Your task to perform on an android device: Go to calendar. Show me events next week Image 0: 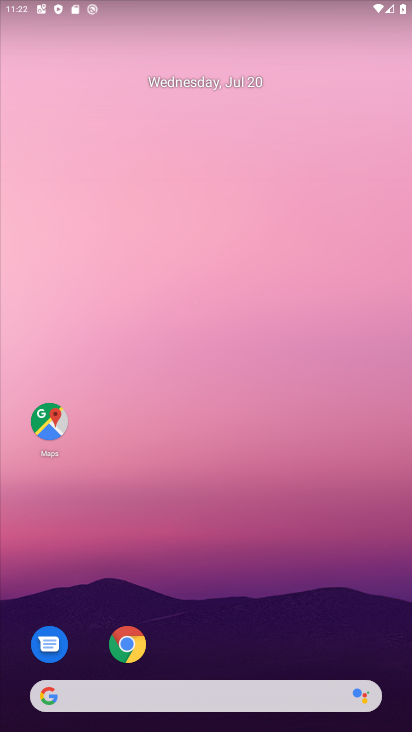
Step 0: drag from (167, 673) to (142, 58)
Your task to perform on an android device: Go to calendar. Show me events next week Image 1: 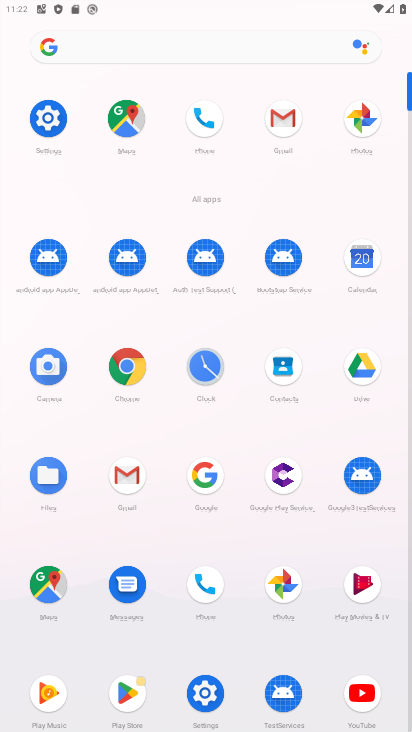
Step 1: click (359, 261)
Your task to perform on an android device: Go to calendar. Show me events next week Image 2: 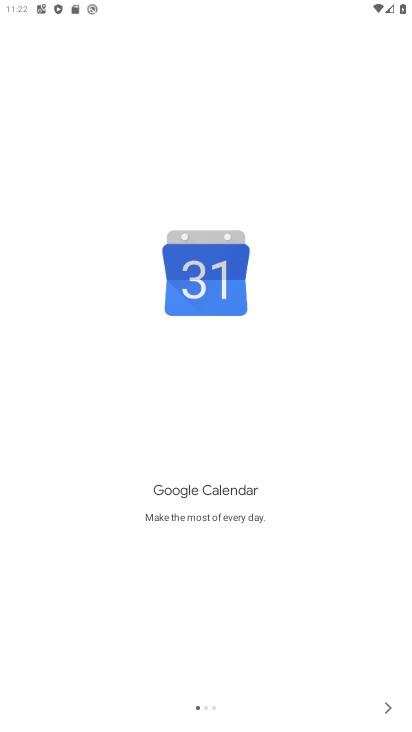
Step 2: click (377, 704)
Your task to perform on an android device: Go to calendar. Show me events next week Image 3: 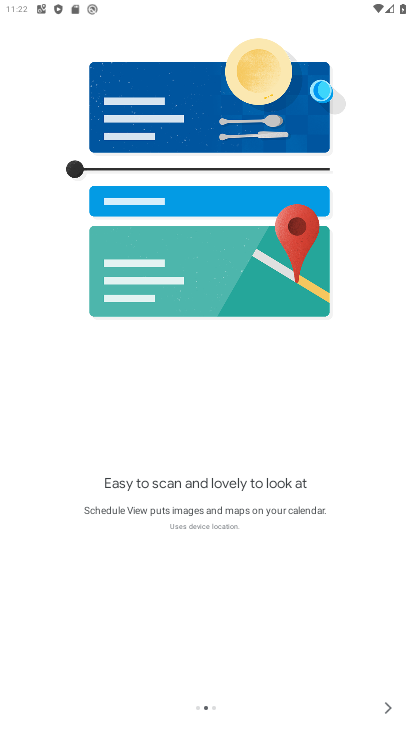
Step 3: click (377, 704)
Your task to perform on an android device: Go to calendar. Show me events next week Image 4: 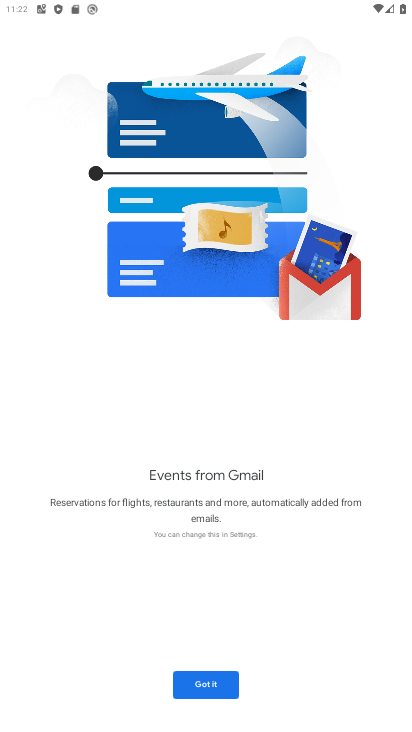
Step 4: click (199, 684)
Your task to perform on an android device: Go to calendar. Show me events next week Image 5: 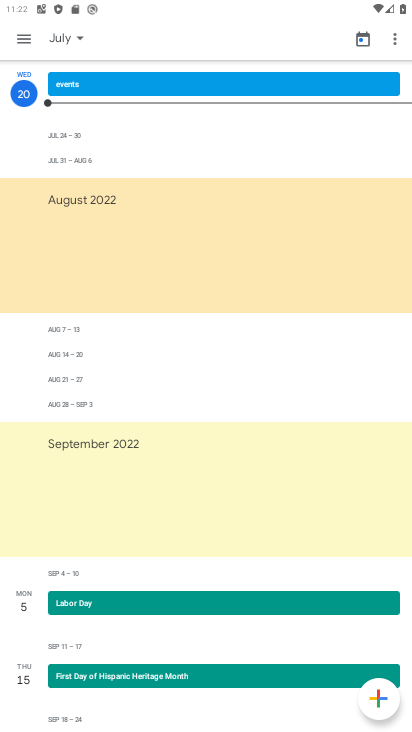
Step 5: click (53, 34)
Your task to perform on an android device: Go to calendar. Show me events next week Image 6: 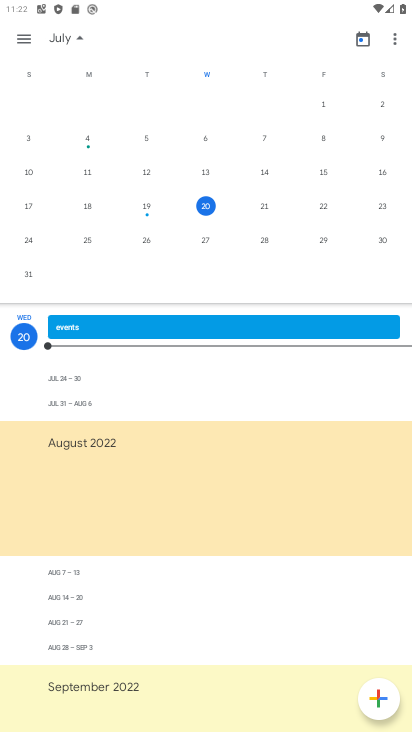
Step 6: click (204, 240)
Your task to perform on an android device: Go to calendar. Show me events next week Image 7: 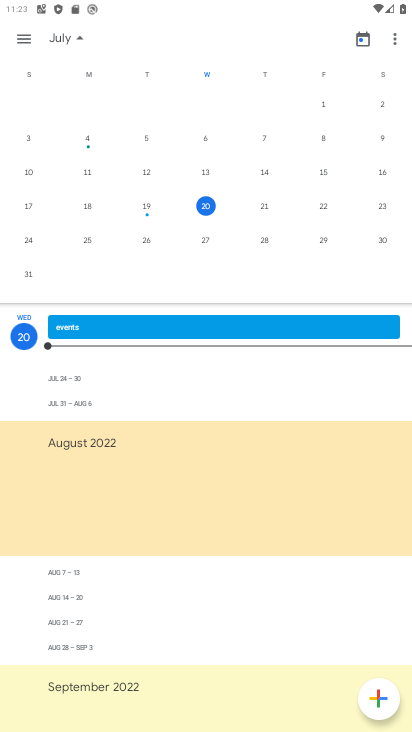
Step 7: click (204, 240)
Your task to perform on an android device: Go to calendar. Show me events next week Image 8: 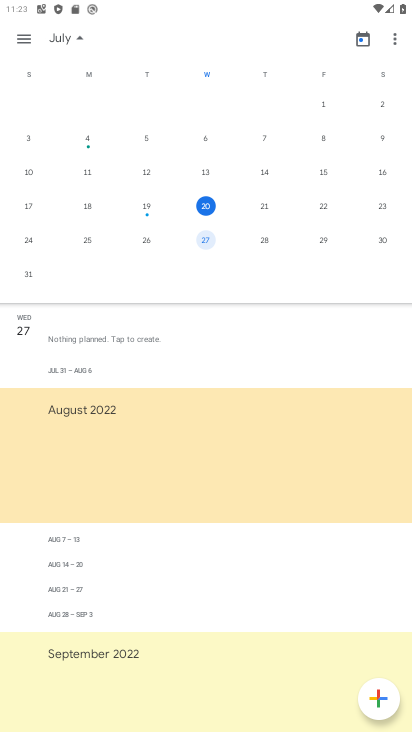
Step 8: click (141, 243)
Your task to perform on an android device: Go to calendar. Show me events next week Image 9: 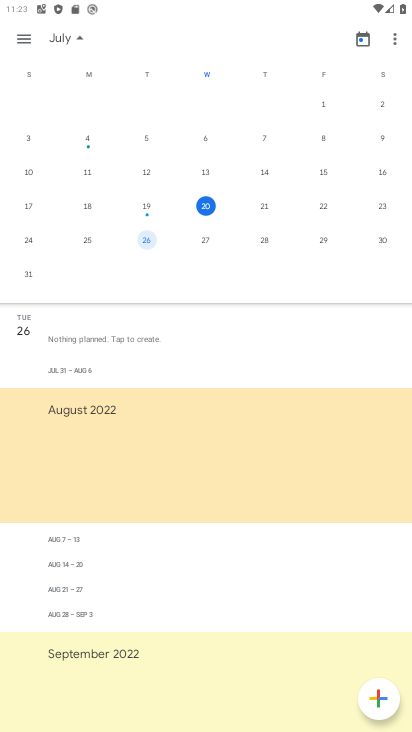
Step 9: task complete